Your task to perform on an android device: open a new tab in the chrome app Image 0: 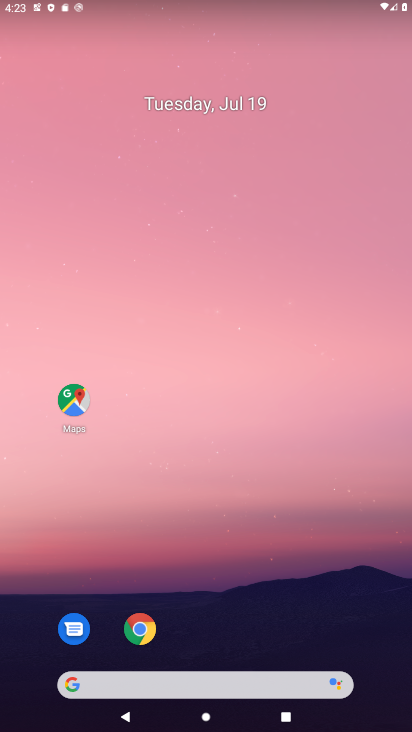
Step 0: click (79, 410)
Your task to perform on an android device: open a new tab in the chrome app Image 1: 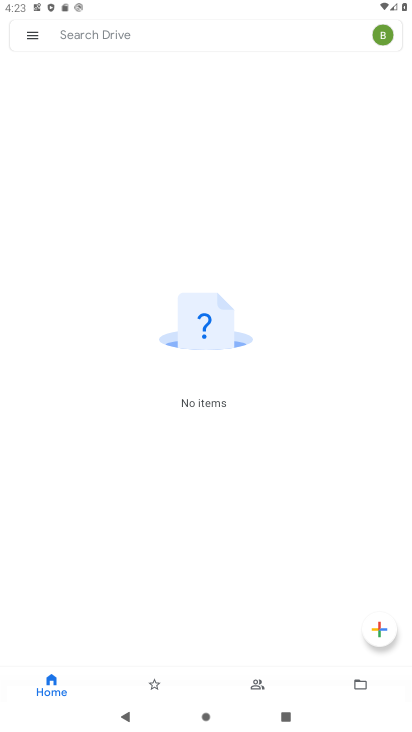
Step 1: press home button
Your task to perform on an android device: open a new tab in the chrome app Image 2: 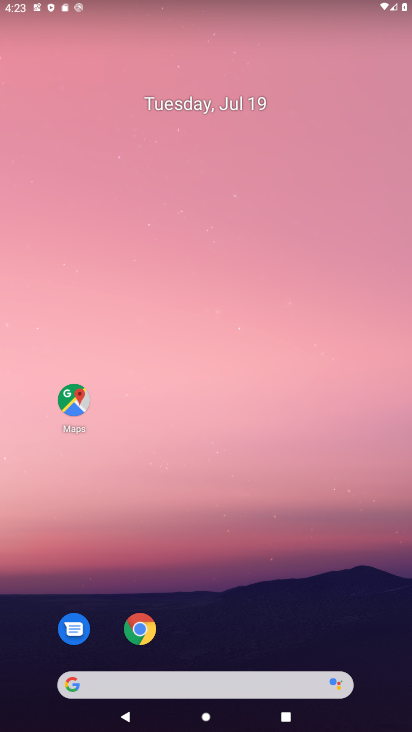
Step 2: click (132, 629)
Your task to perform on an android device: open a new tab in the chrome app Image 3: 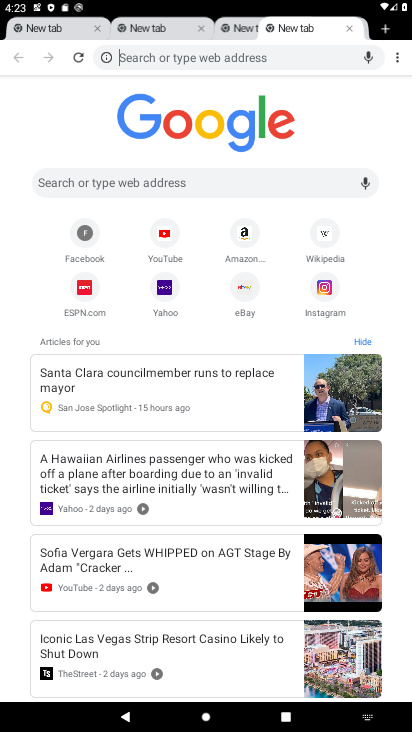
Step 3: click (392, 58)
Your task to perform on an android device: open a new tab in the chrome app Image 4: 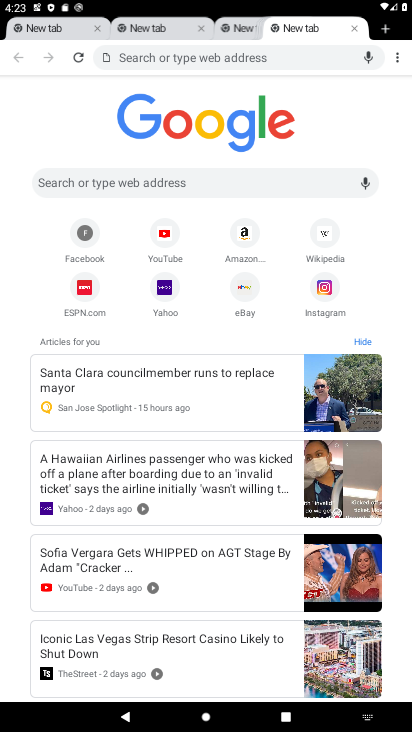
Step 4: task complete